Your task to perform on an android device: manage bookmarks in the chrome app Image 0: 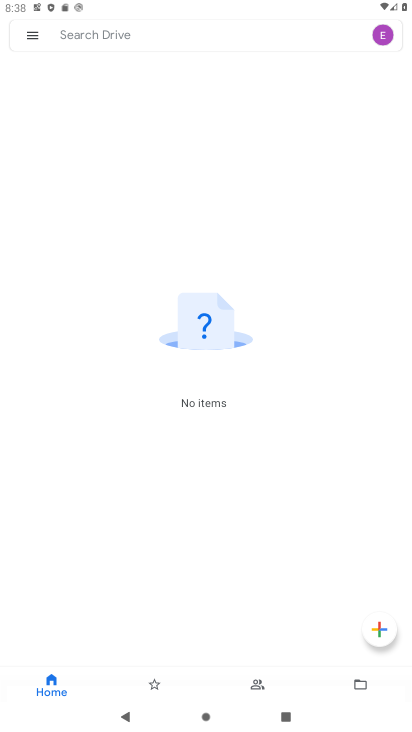
Step 0: press home button
Your task to perform on an android device: manage bookmarks in the chrome app Image 1: 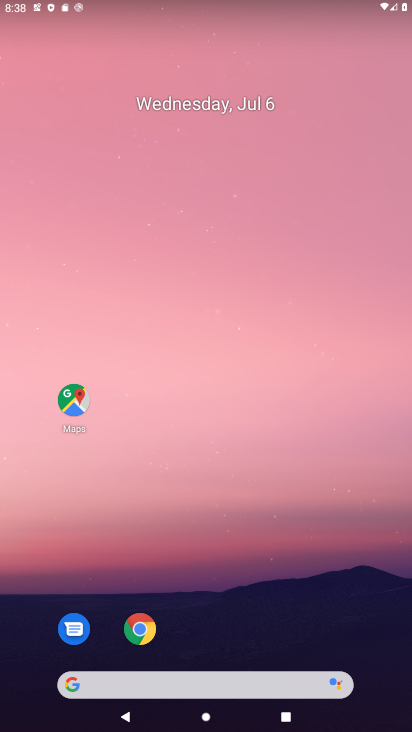
Step 1: click (142, 627)
Your task to perform on an android device: manage bookmarks in the chrome app Image 2: 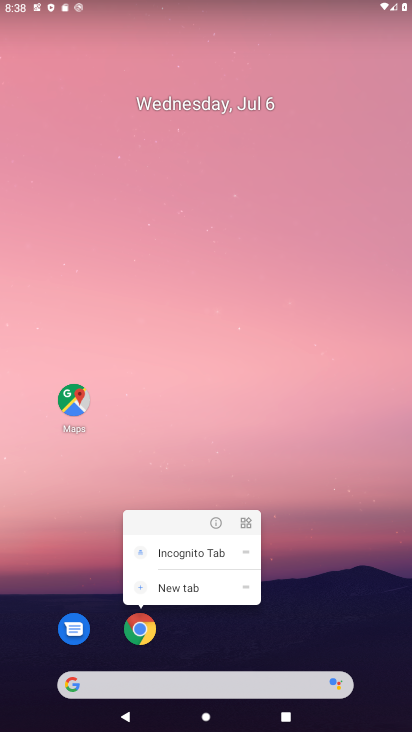
Step 2: click (142, 627)
Your task to perform on an android device: manage bookmarks in the chrome app Image 3: 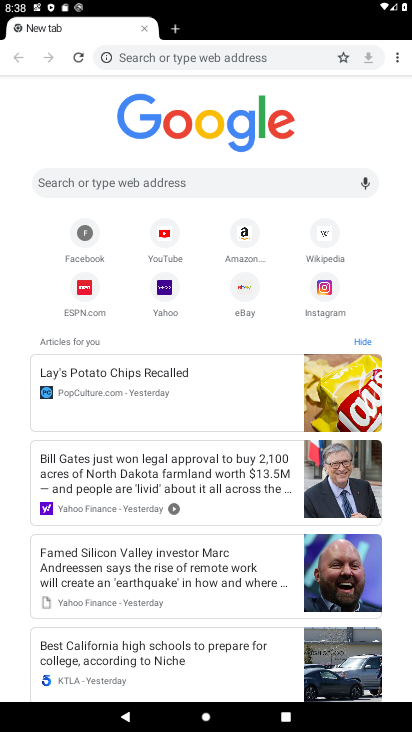
Step 3: click (399, 60)
Your task to perform on an android device: manage bookmarks in the chrome app Image 4: 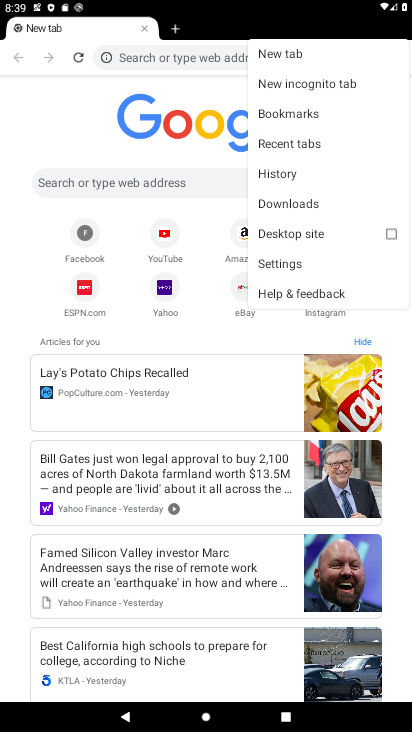
Step 4: click (287, 114)
Your task to perform on an android device: manage bookmarks in the chrome app Image 5: 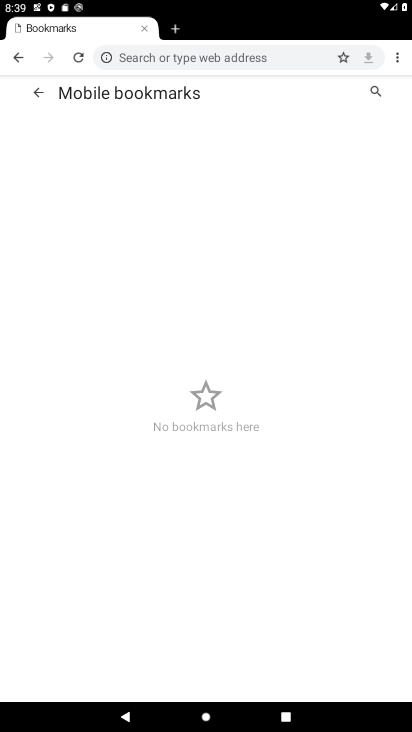
Step 5: task complete